Your task to perform on an android device: Go to Google maps Image 0: 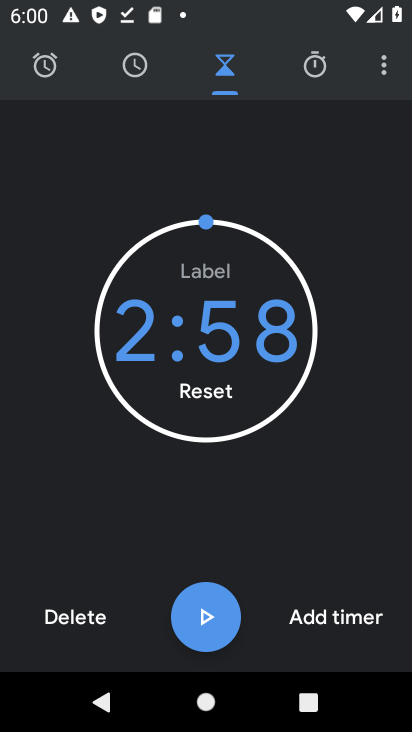
Step 0: drag from (177, 545) to (228, 237)
Your task to perform on an android device: Go to Google maps Image 1: 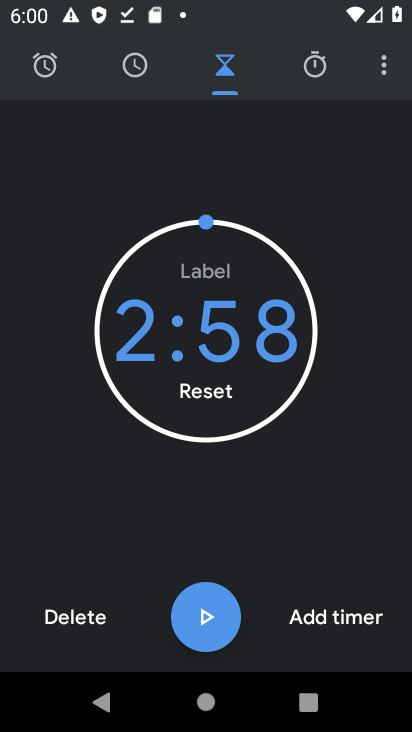
Step 1: press home button
Your task to perform on an android device: Go to Google maps Image 2: 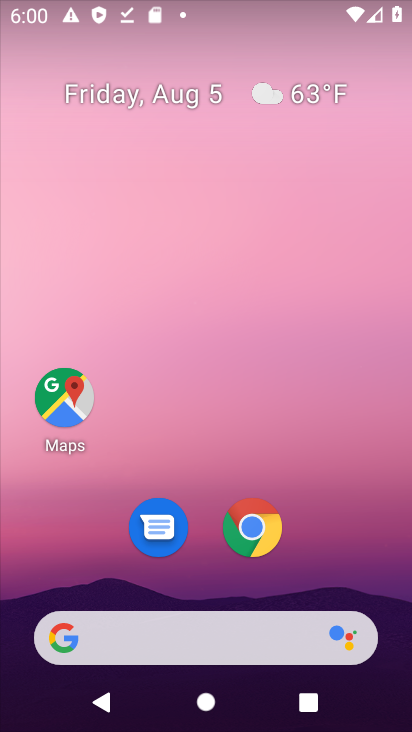
Step 2: drag from (192, 552) to (238, 236)
Your task to perform on an android device: Go to Google maps Image 3: 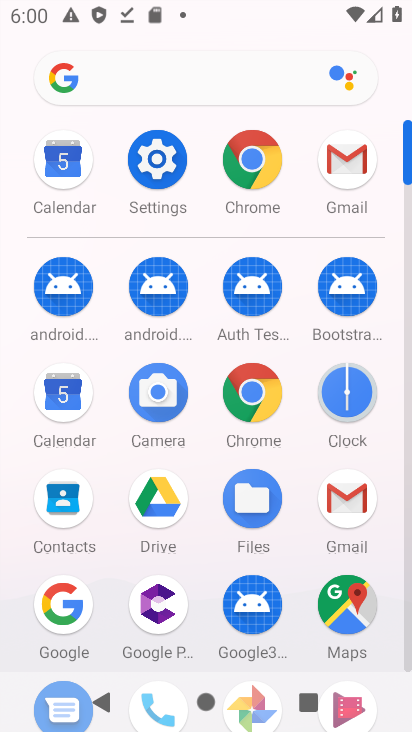
Step 3: click (341, 602)
Your task to perform on an android device: Go to Google maps Image 4: 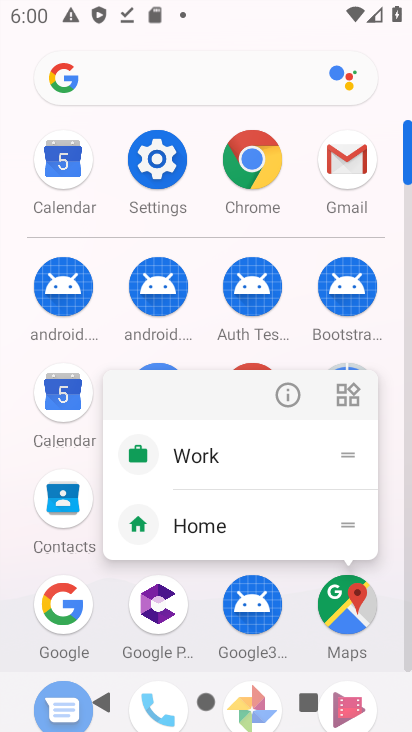
Step 4: click (277, 398)
Your task to perform on an android device: Go to Google maps Image 5: 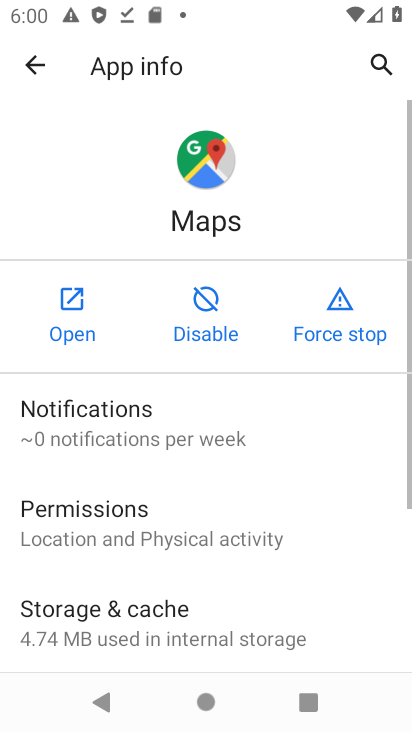
Step 5: click (56, 311)
Your task to perform on an android device: Go to Google maps Image 6: 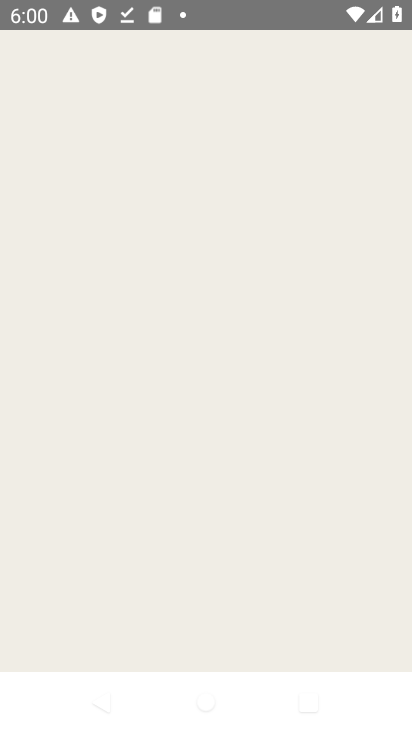
Step 6: drag from (217, 469) to (224, 259)
Your task to perform on an android device: Go to Google maps Image 7: 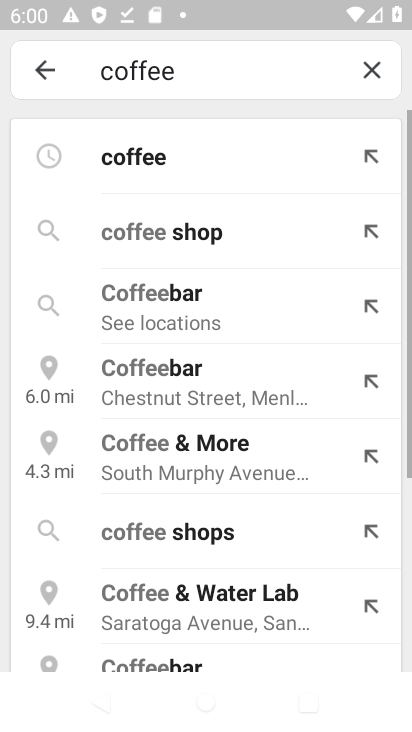
Step 7: drag from (268, 170) to (294, 491)
Your task to perform on an android device: Go to Google maps Image 8: 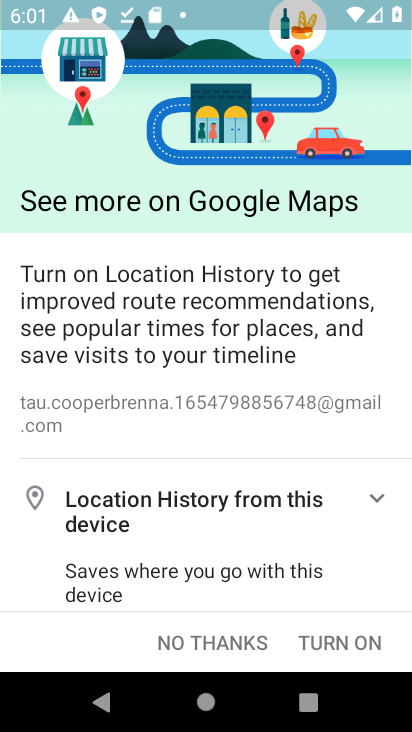
Step 8: click (232, 647)
Your task to perform on an android device: Go to Google maps Image 9: 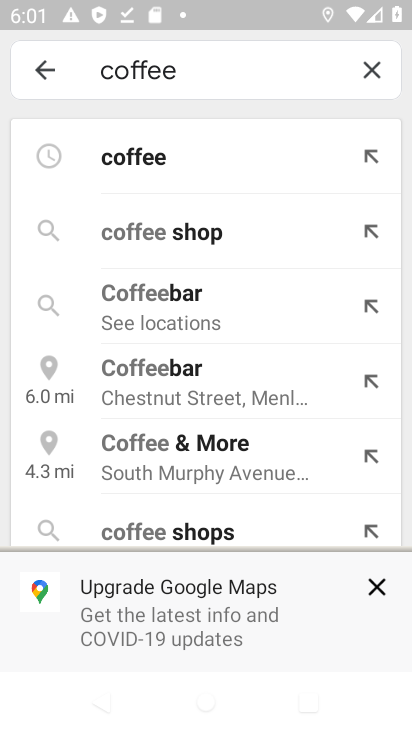
Step 9: click (37, 82)
Your task to perform on an android device: Go to Google maps Image 10: 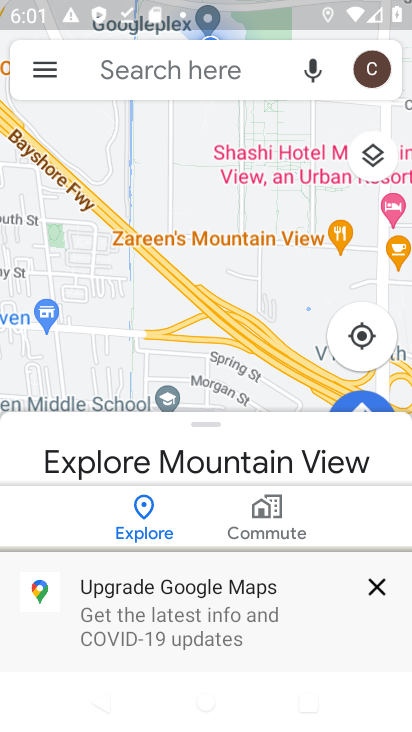
Step 10: task complete